Your task to perform on an android device: show emergency info Image 0: 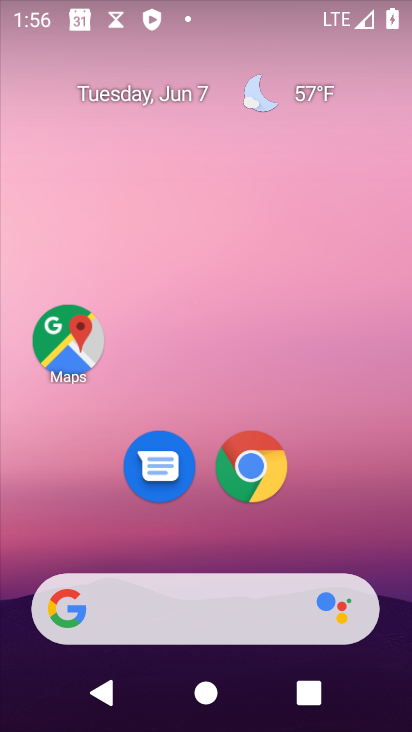
Step 0: drag from (155, 560) to (227, 16)
Your task to perform on an android device: show emergency info Image 1: 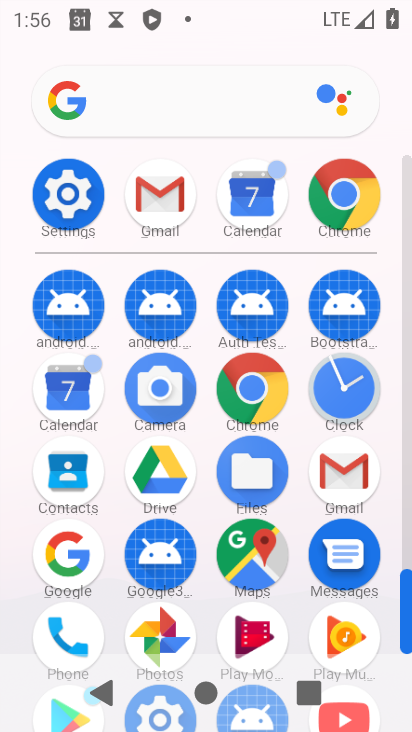
Step 1: click (81, 186)
Your task to perform on an android device: show emergency info Image 2: 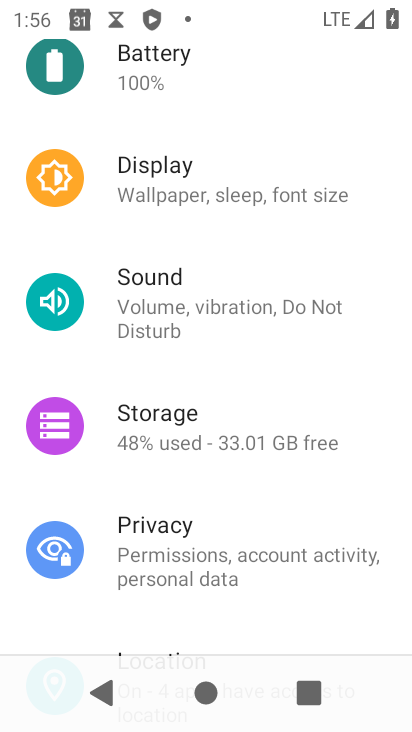
Step 2: drag from (210, 588) to (229, 69)
Your task to perform on an android device: show emergency info Image 3: 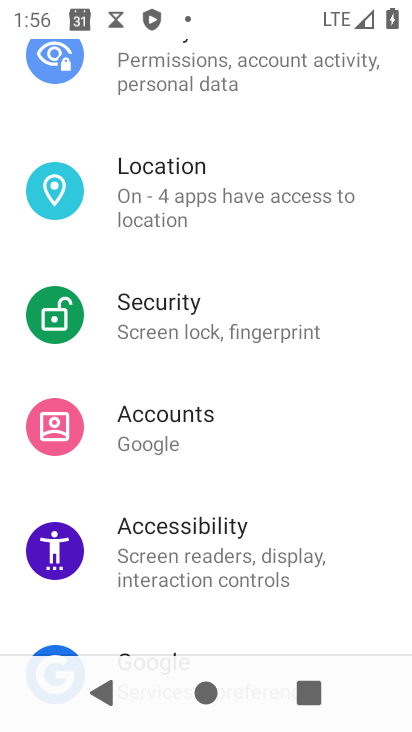
Step 3: drag from (194, 560) to (261, 66)
Your task to perform on an android device: show emergency info Image 4: 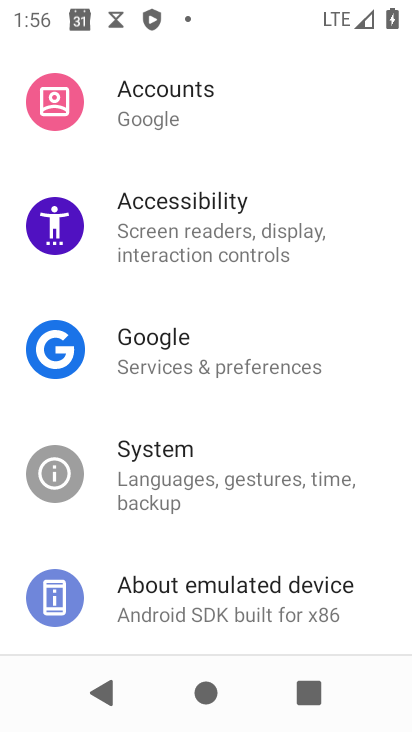
Step 4: drag from (172, 587) to (232, 161)
Your task to perform on an android device: show emergency info Image 5: 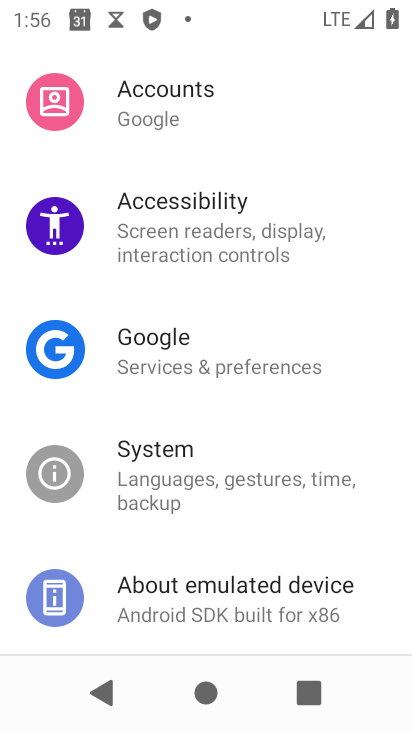
Step 5: drag from (209, 593) to (304, 15)
Your task to perform on an android device: show emergency info Image 6: 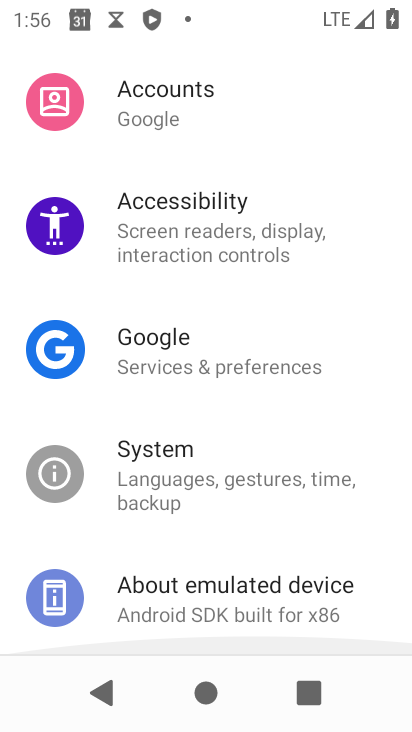
Step 6: click (211, 603)
Your task to perform on an android device: show emergency info Image 7: 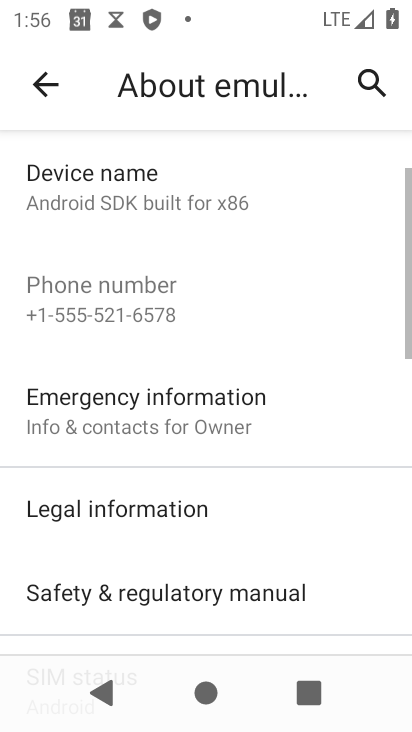
Step 7: click (141, 416)
Your task to perform on an android device: show emergency info Image 8: 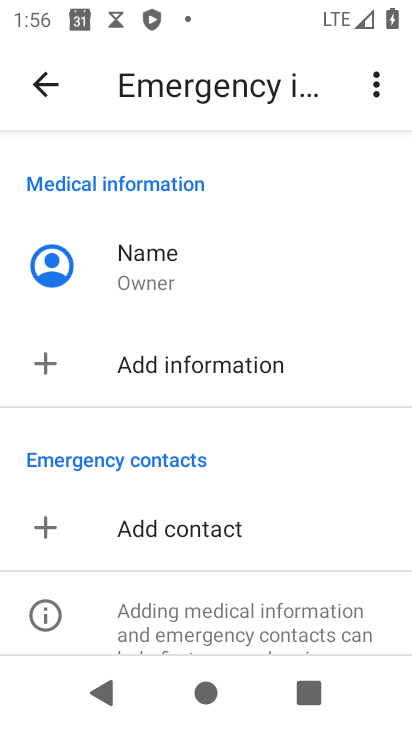
Step 8: task complete